Your task to perform on an android device: Search for Mexican restaurants on Maps Image 0: 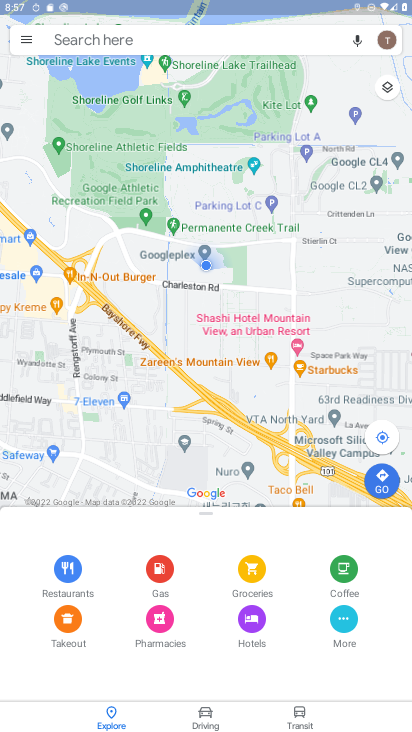
Step 0: press home button
Your task to perform on an android device: Search for Mexican restaurants on Maps Image 1: 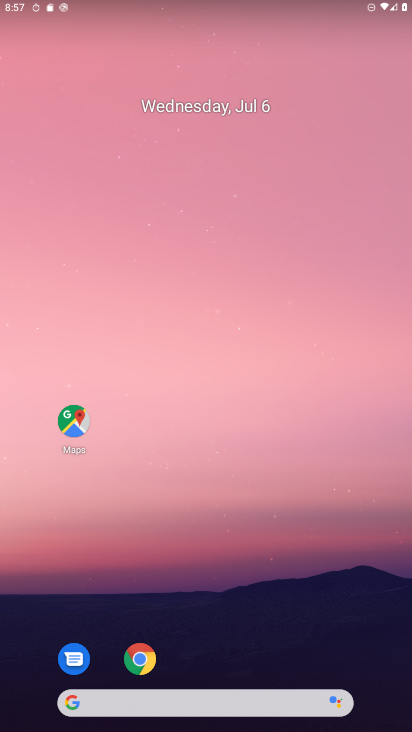
Step 1: drag from (364, 623) to (354, 167)
Your task to perform on an android device: Search for Mexican restaurants on Maps Image 2: 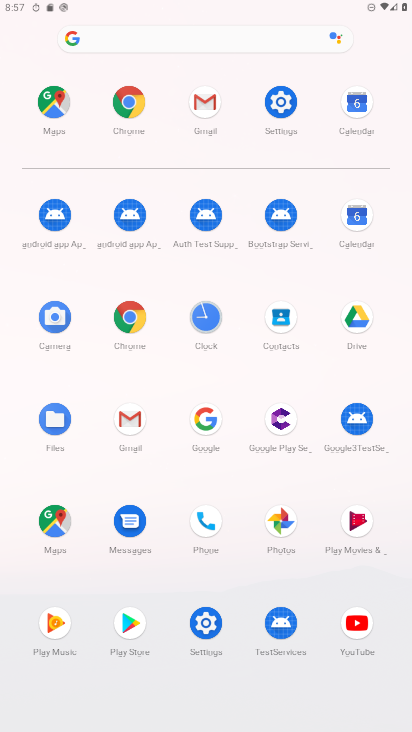
Step 2: click (62, 521)
Your task to perform on an android device: Search for Mexican restaurants on Maps Image 3: 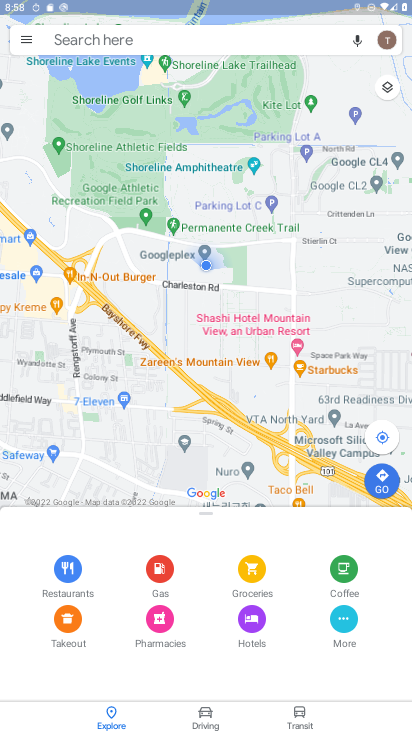
Step 3: click (132, 36)
Your task to perform on an android device: Search for Mexican restaurants on Maps Image 4: 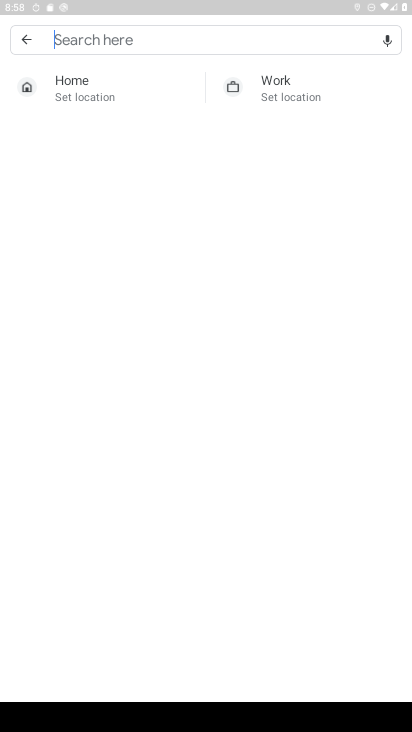
Step 4: type "mexican restaurants"
Your task to perform on an android device: Search for Mexican restaurants on Maps Image 5: 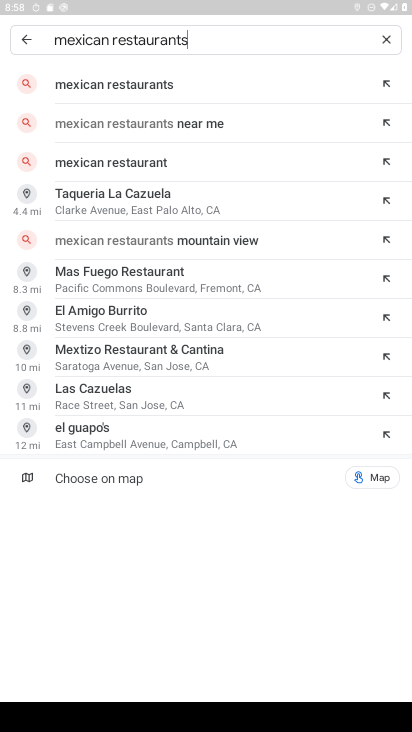
Step 5: click (236, 90)
Your task to perform on an android device: Search for Mexican restaurants on Maps Image 6: 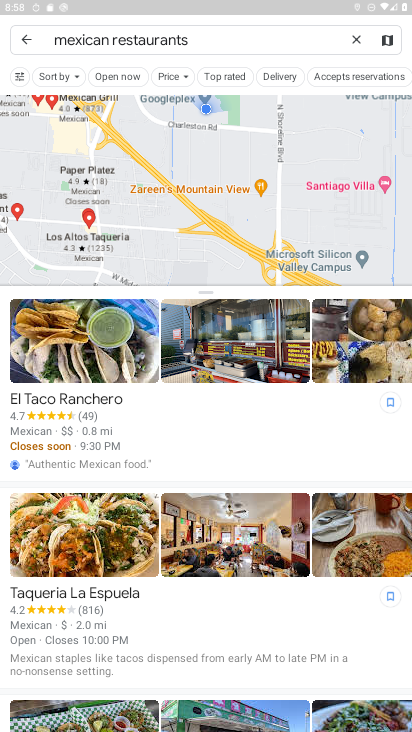
Step 6: task complete